Your task to perform on an android device: visit the assistant section in the google photos Image 0: 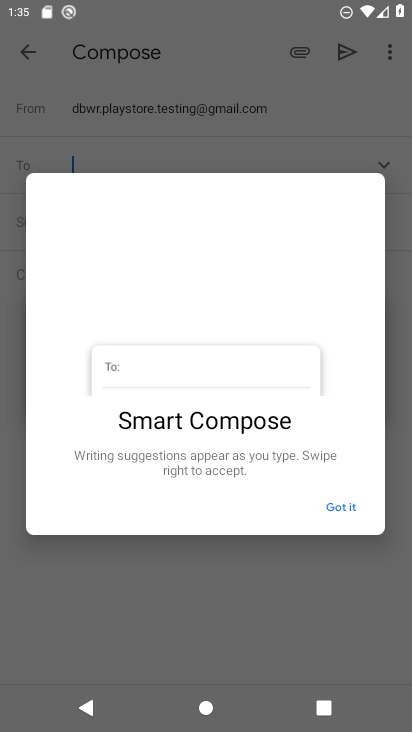
Step 0: press home button
Your task to perform on an android device: visit the assistant section in the google photos Image 1: 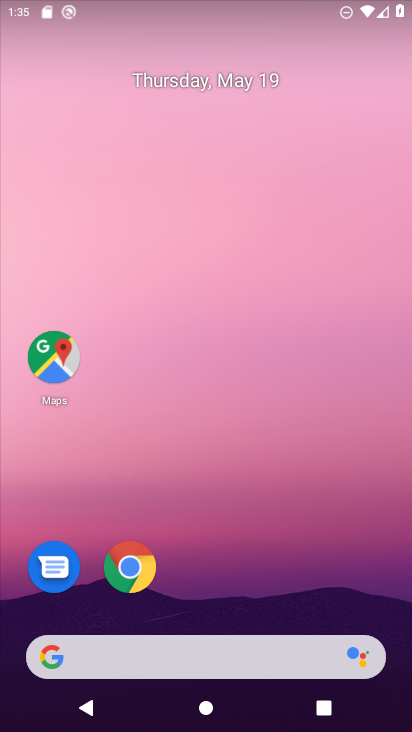
Step 1: drag from (259, 562) to (242, 194)
Your task to perform on an android device: visit the assistant section in the google photos Image 2: 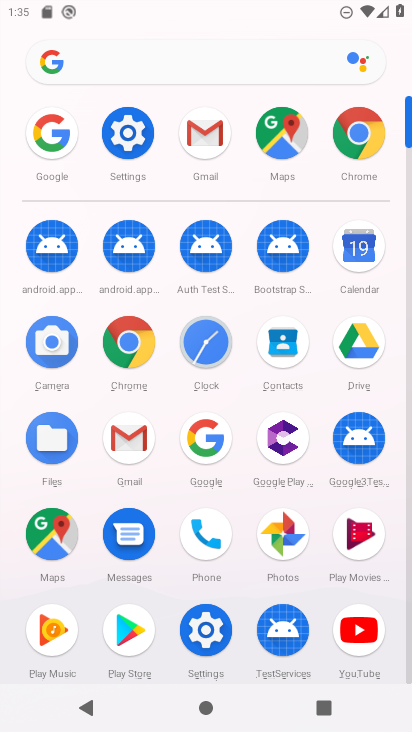
Step 2: click (288, 542)
Your task to perform on an android device: visit the assistant section in the google photos Image 3: 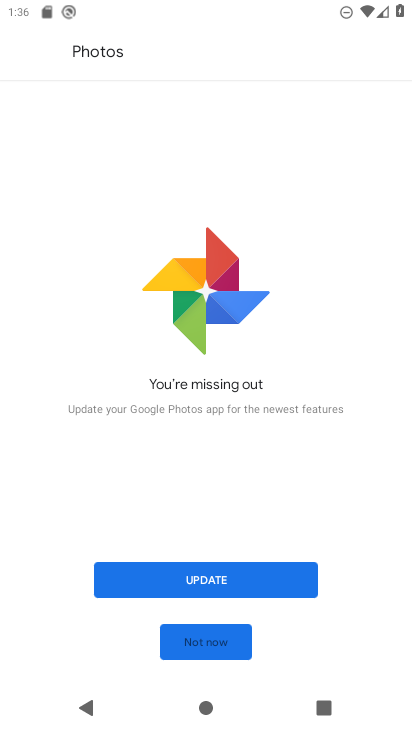
Step 3: click (288, 542)
Your task to perform on an android device: visit the assistant section in the google photos Image 4: 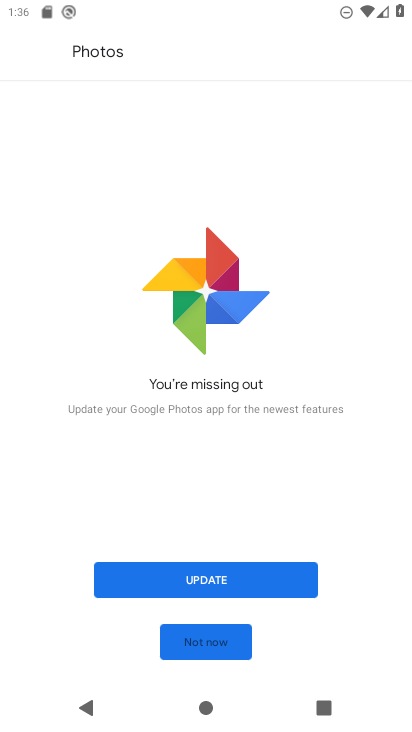
Step 4: click (208, 579)
Your task to perform on an android device: visit the assistant section in the google photos Image 5: 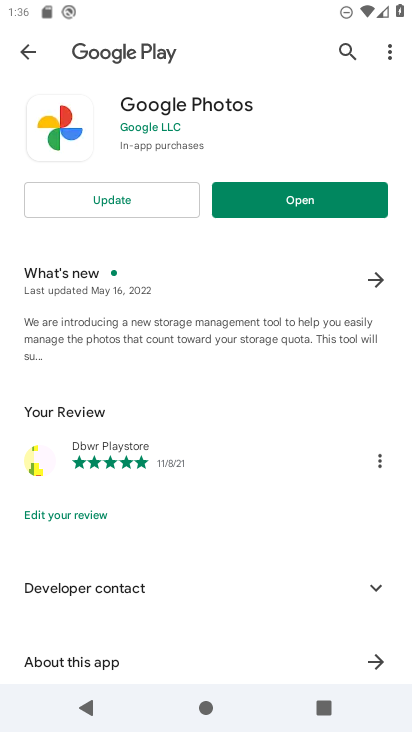
Step 5: click (112, 200)
Your task to perform on an android device: visit the assistant section in the google photos Image 6: 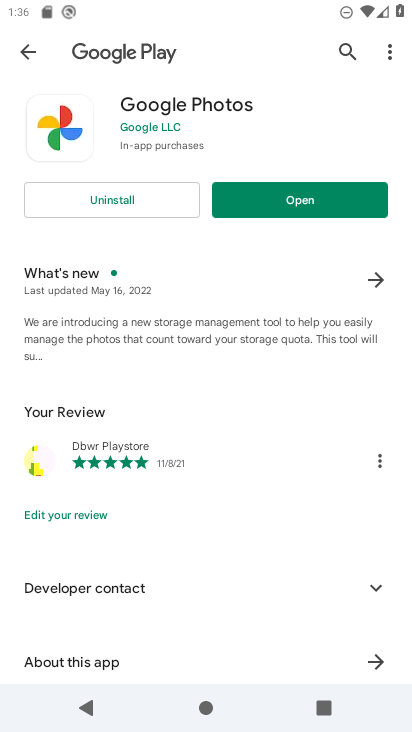
Step 6: click (279, 199)
Your task to perform on an android device: visit the assistant section in the google photos Image 7: 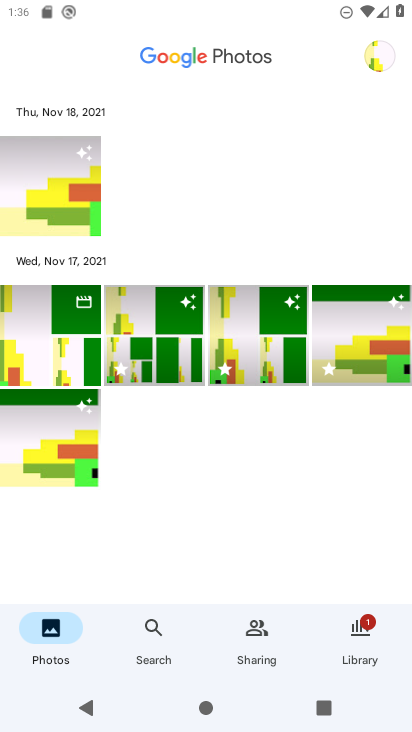
Step 7: click (350, 632)
Your task to perform on an android device: visit the assistant section in the google photos Image 8: 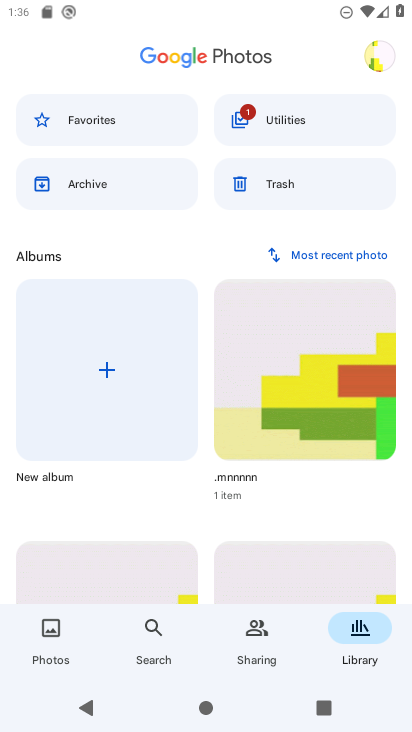
Step 8: click (361, 73)
Your task to perform on an android device: visit the assistant section in the google photos Image 9: 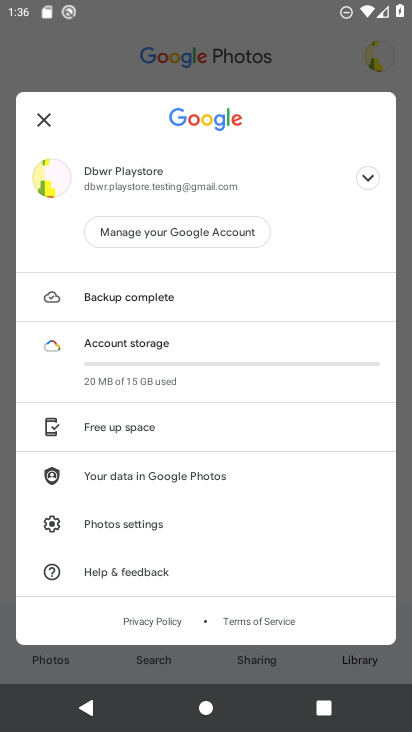
Step 9: click (177, 529)
Your task to perform on an android device: visit the assistant section in the google photos Image 10: 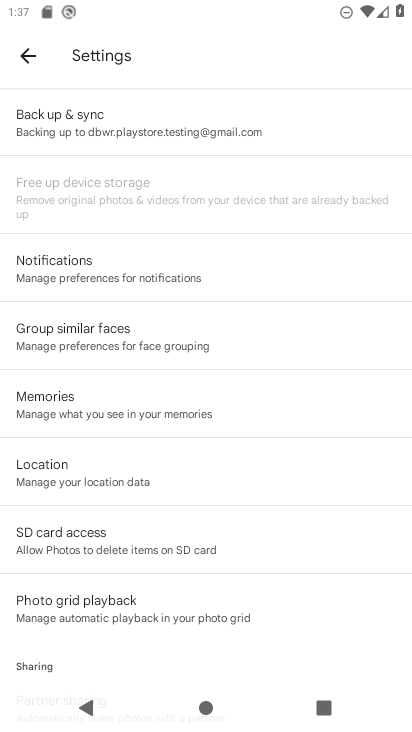
Step 10: drag from (267, 507) to (240, 179)
Your task to perform on an android device: visit the assistant section in the google photos Image 11: 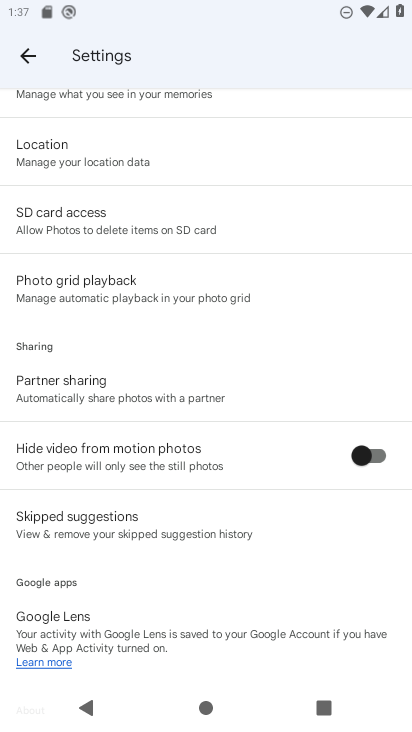
Step 11: drag from (185, 512) to (164, 201)
Your task to perform on an android device: visit the assistant section in the google photos Image 12: 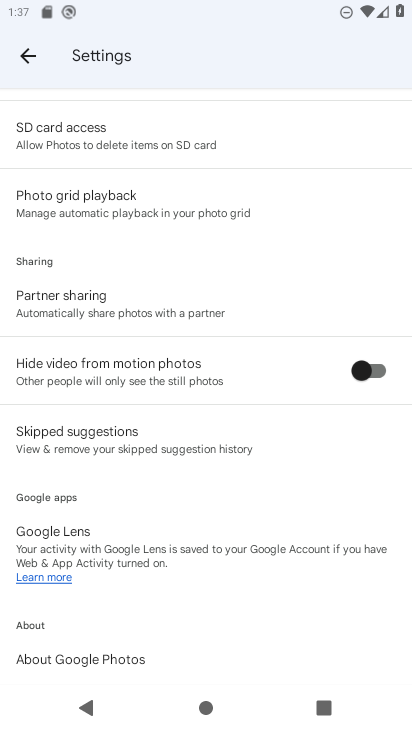
Step 12: drag from (222, 245) to (214, 486)
Your task to perform on an android device: visit the assistant section in the google photos Image 13: 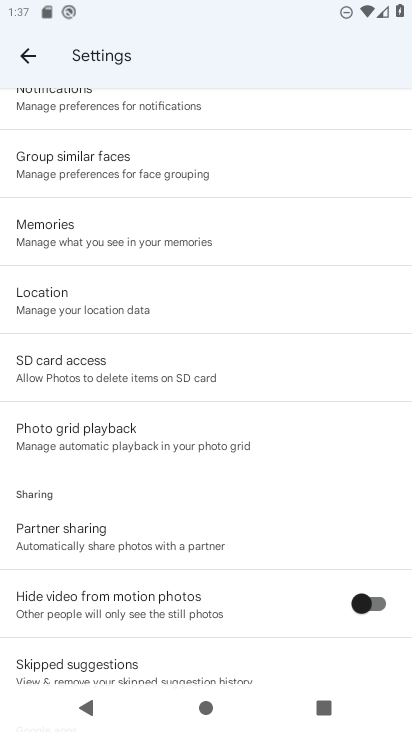
Step 13: drag from (226, 256) to (308, 446)
Your task to perform on an android device: visit the assistant section in the google photos Image 14: 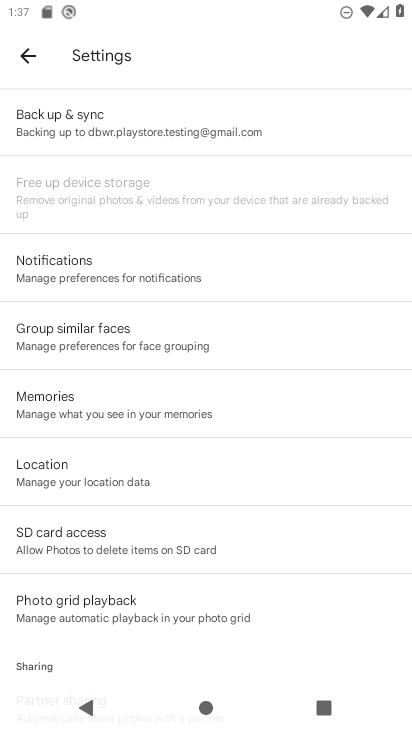
Step 14: drag from (218, 273) to (244, 586)
Your task to perform on an android device: visit the assistant section in the google photos Image 15: 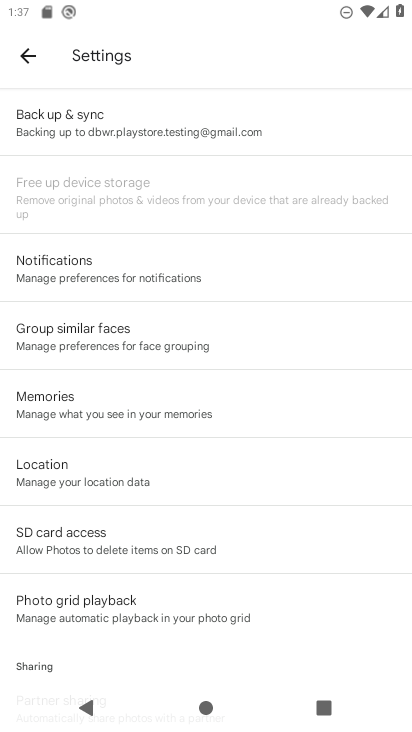
Step 15: press back button
Your task to perform on an android device: visit the assistant section in the google photos Image 16: 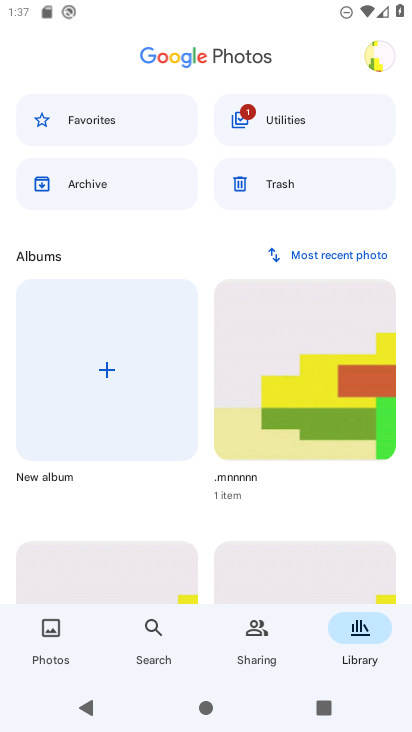
Step 16: click (170, 643)
Your task to perform on an android device: visit the assistant section in the google photos Image 17: 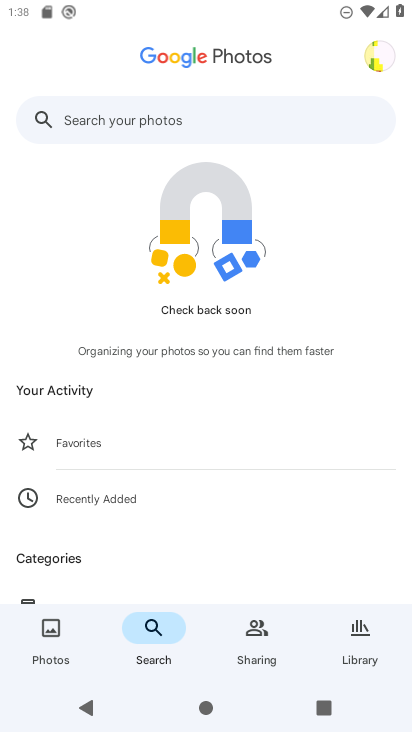
Step 17: click (154, 118)
Your task to perform on an android device: visit the assistant section in the google photos Image 18: 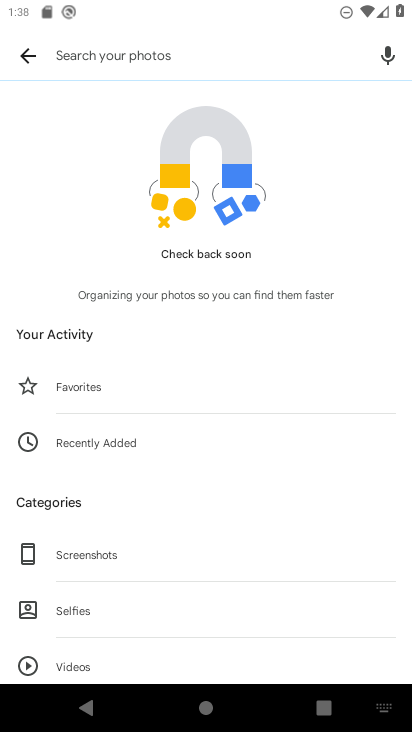
Step 18: type "assistant section"
Your task to perform on an android device: visit the assistant section in the google photos Image 19: 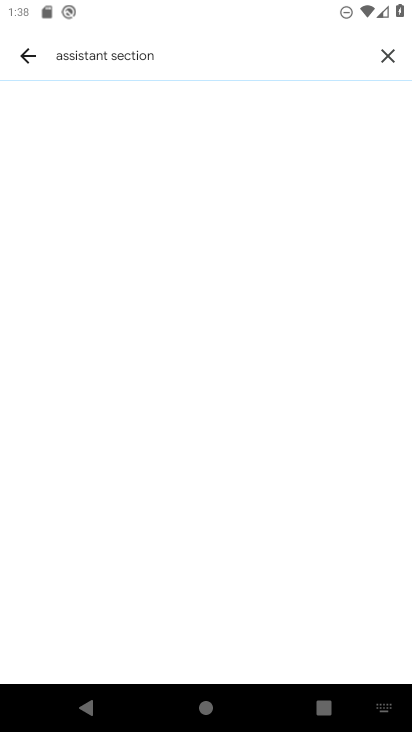
Step 19: task complete